Your task to perform on an android device: What's the weather going to be tomorrow? Image 0: 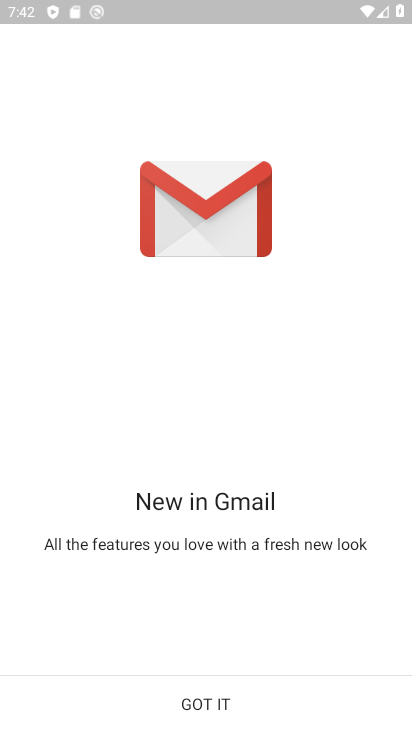
Step 0: press home button
Your task to perform on an android device: What's the weather going to be tomorrow? Image 1: 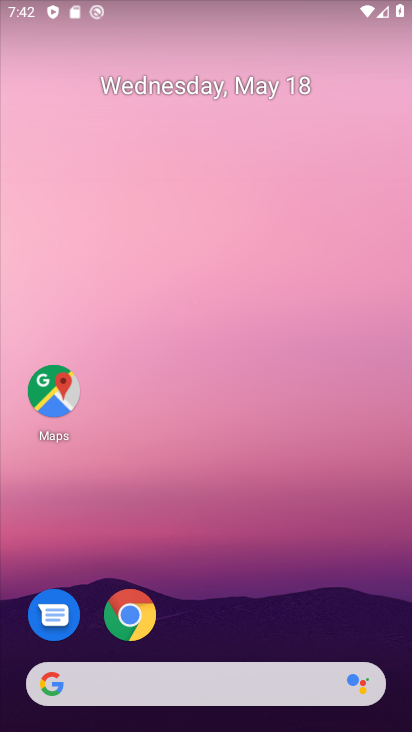
Step 1: drag from (246, 604) to (275, 190)
Your task to perform on an android device: What's the weather going to be tomorrow? Image 2: 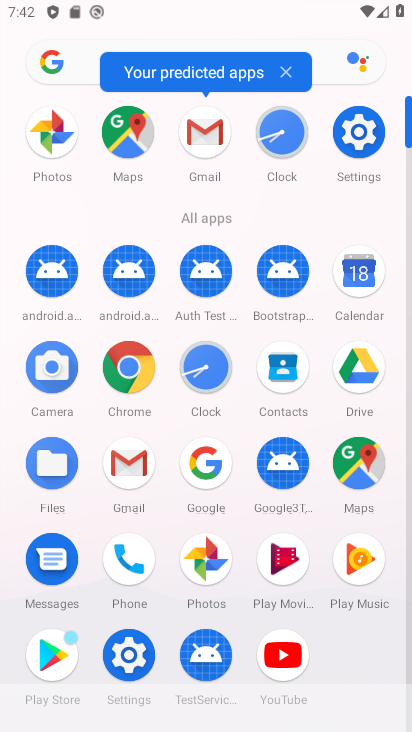
Step 2: click (203, 462)
Your task to perform on an android device: What's the weather going to be tomorrow? Image 3: 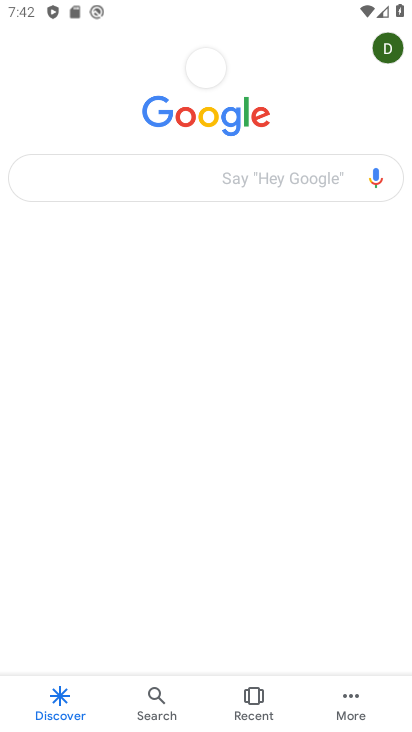
Step 3: click (183, 191)
Your task to perform on an android device: What's the weather going to be tomorrow? Image 4: 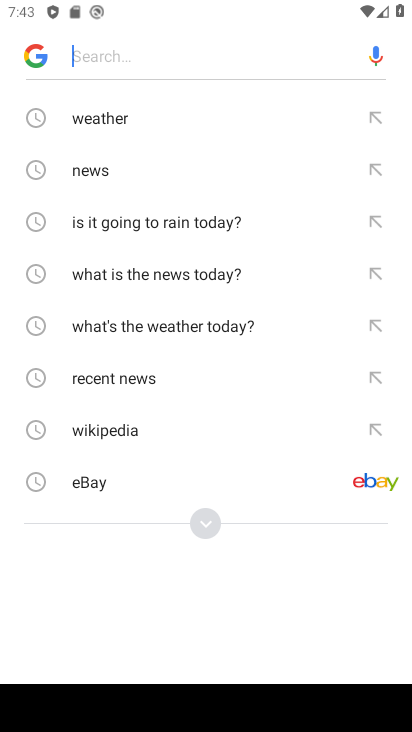
Step 4: type "weather going to be tomorrow"
Your task to perform on an android device: What's the weather going to be tomorrow? Image 5: 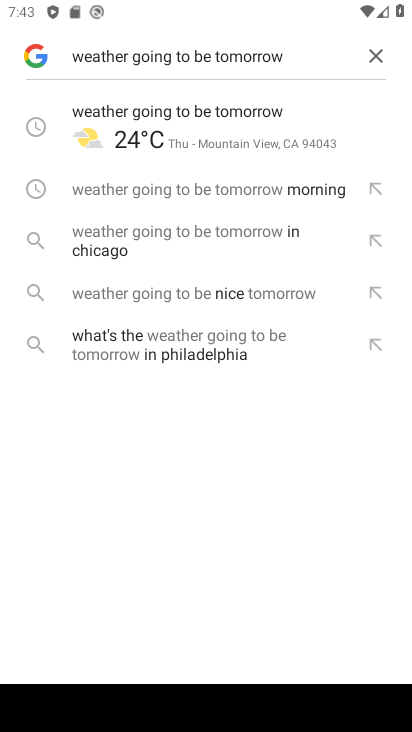
Step 5: click (203, 128)
Your task to perform on an android device: What's the weather going to be tomorrow? Image 6: 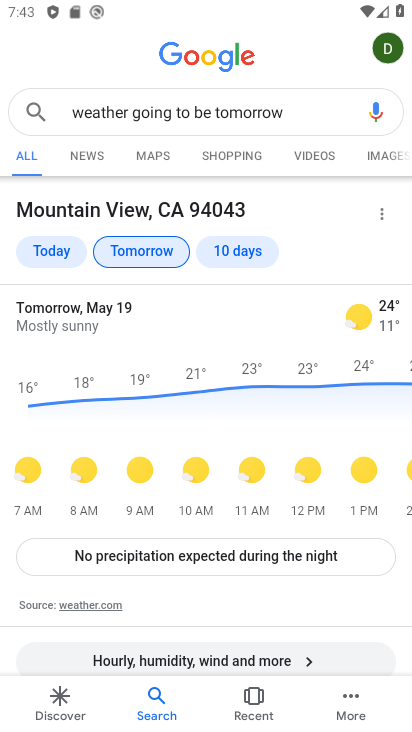
Step 6: task complete